Your task to perform on an android device: turn notification dots off Image 0: 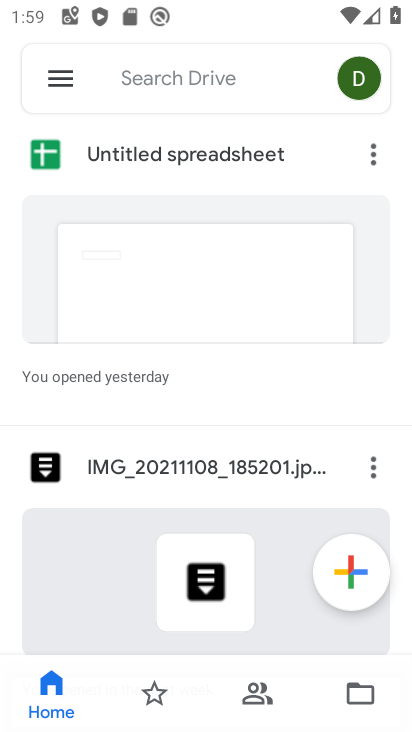
Step 0: press home button
Your task to perform on an android device: turn notification dots off Image 1: 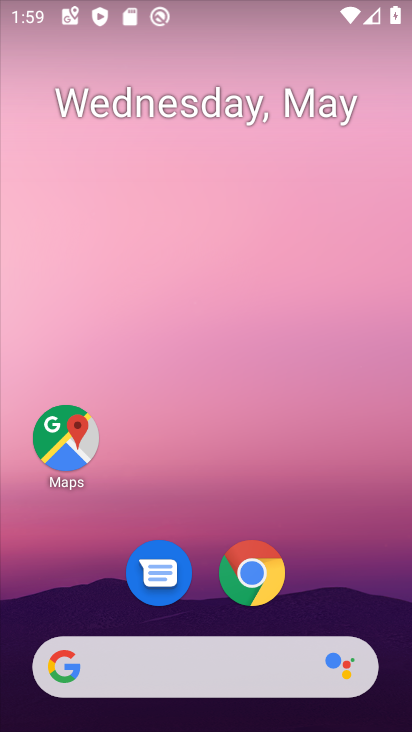
Step 1: drag from (312, 606) to (344, 82)
Your task to perform on an android device: turn notification dots off Image 2: 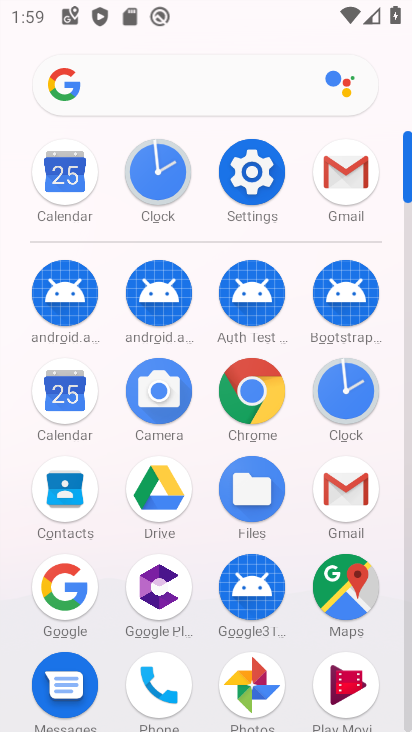
Step 2: click (251, 173)
Your task to perform on an android device: turn notification dots off Image 3: 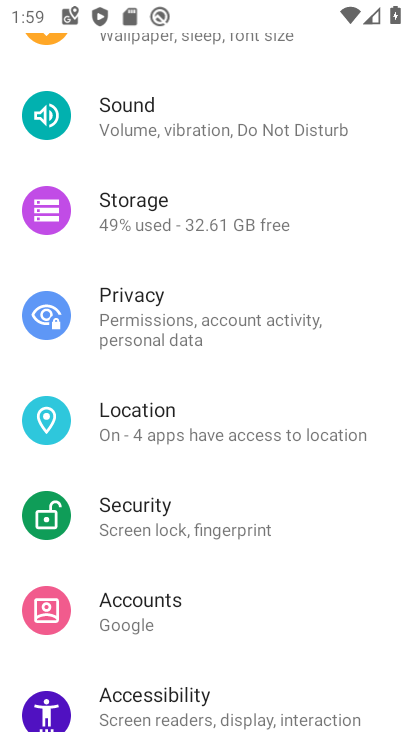
Step 3: drag from (232, 196) to (259, 627)
Your task to perform on an android device: turn notification dots off Image 4: 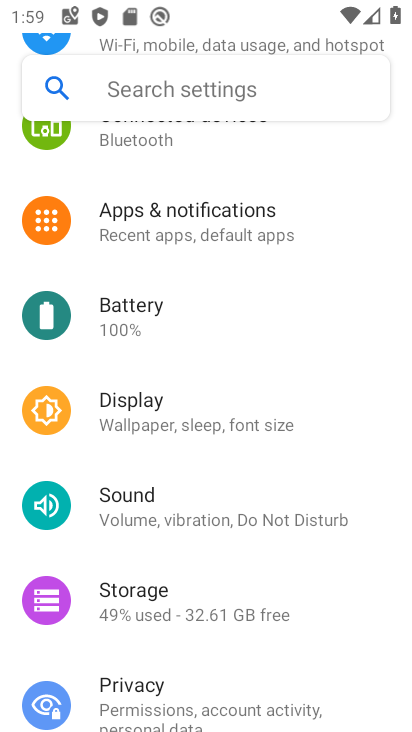
Step 4: click (274, 220)
Your task to perform on an android device: turn notification dots off Image 5: 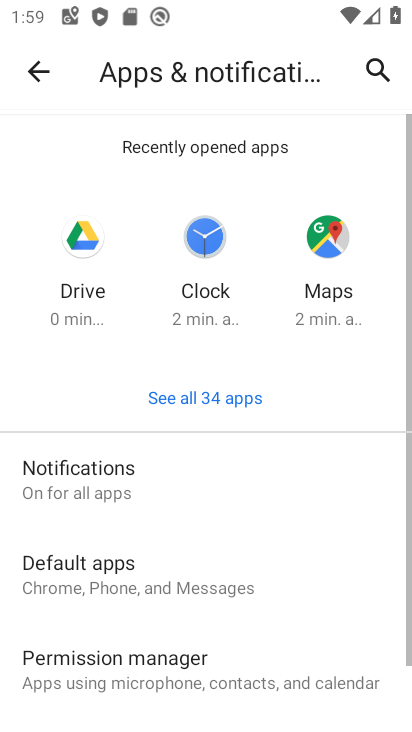
Step 5: click (75, 481)
Your task to perform on an android device: turn notification dots off Image 6: 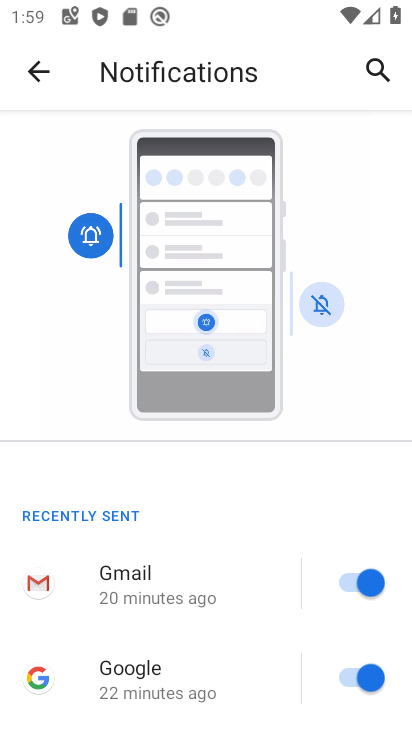
Step 6: drag from (233, 637) to (293, 118)
Your task to perform on an android device: turn notification dots off Image 7: 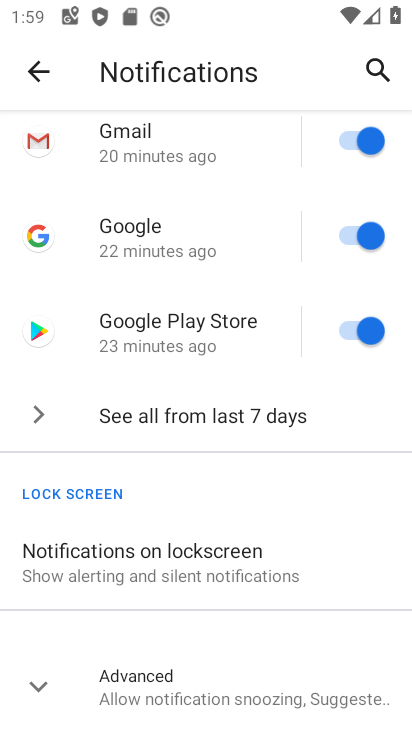
Step 7: click (120, 662)
Your task to perform on an android device: turn notification dots off Image 8: 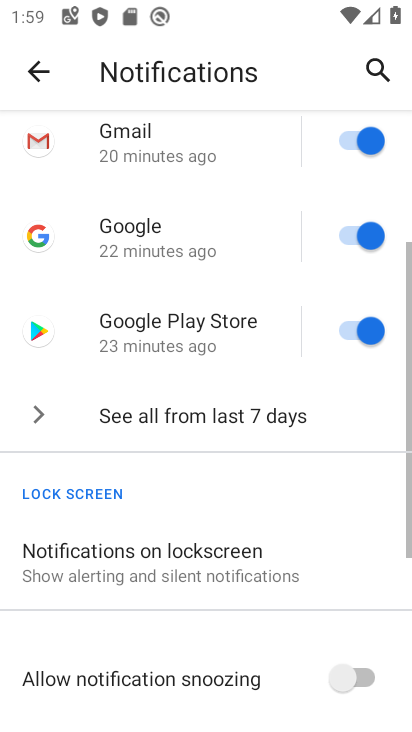
Step 8: drag from (144, 661) to (245, 222)
Your task to perform on an android device: turn notification dots off Image 9: 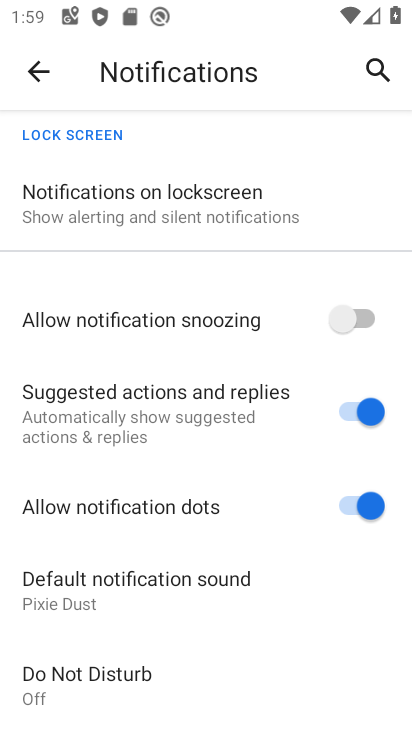
Step 9: click (349, 498)
Your task to perform on an android device: turn notification dots off Image 10: 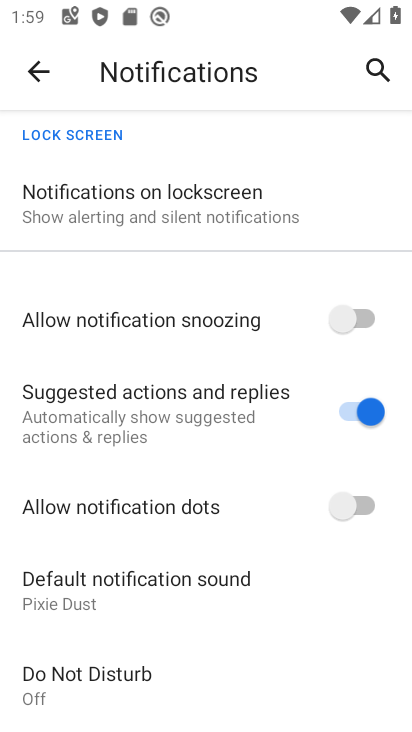
Step 10: task complete